Your task to perform on an android device: open a new tab in the chrome app Image 0: 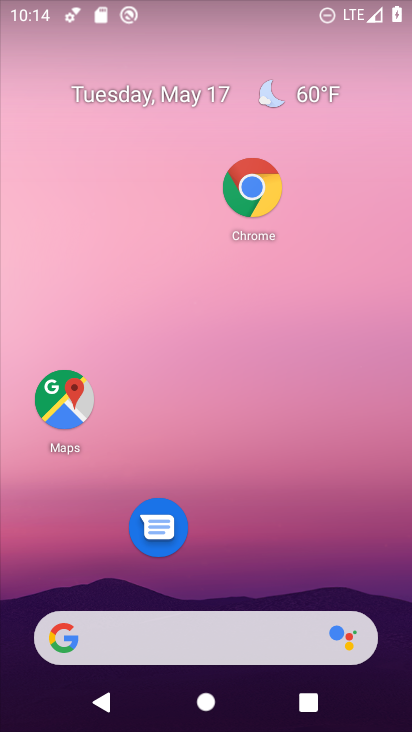
Step 0: click (258, 215)
Your task to perform on an android device: open a new tab in the chrome app Image 1: 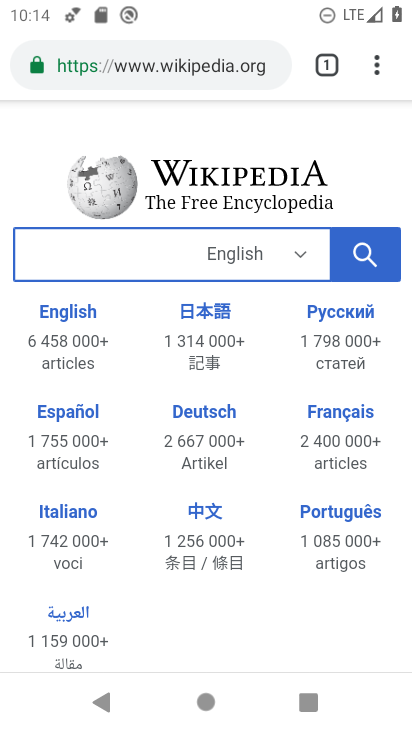
Step 1: click (336, 58)
Your task to perform on an android device: open a new tab in the chrome app Image 2: 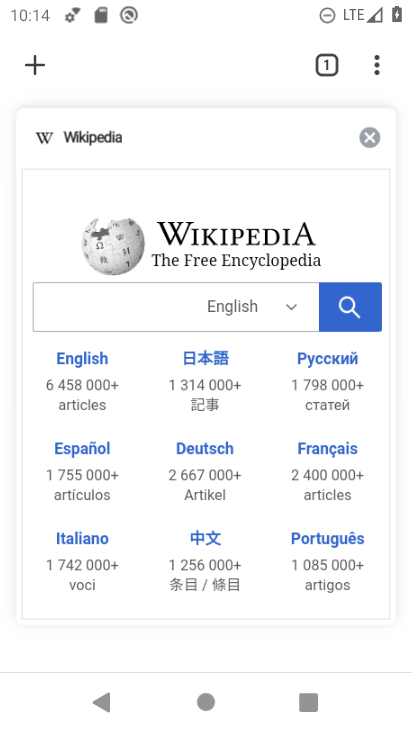
Step 2: task complete